Your task to perform on an android device: turn on notifications settings in the gmail app Image 0: 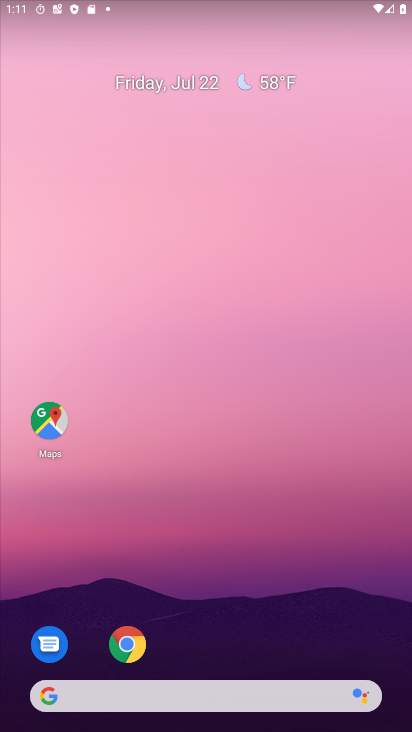
Step 0: drag from (170, 628) to (157, 319)
Your task to perform on an android device: turn on notifications settings in the gmail app Image 1: 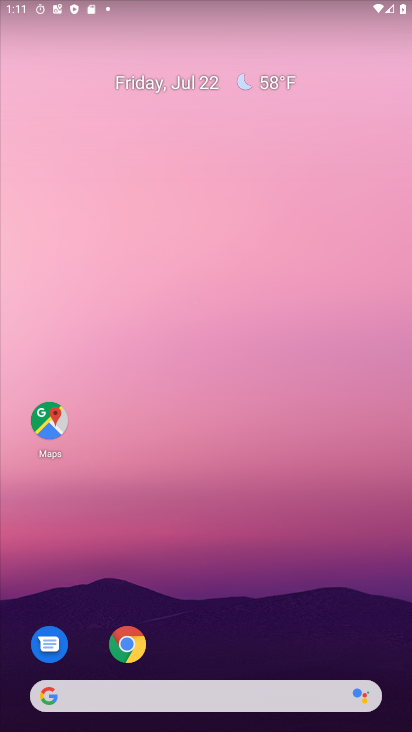
Step 1: drag from (182, 639) to (231, 256)
Your task to perform on an android device: turn on notifications settings in the gmail app Image 2: 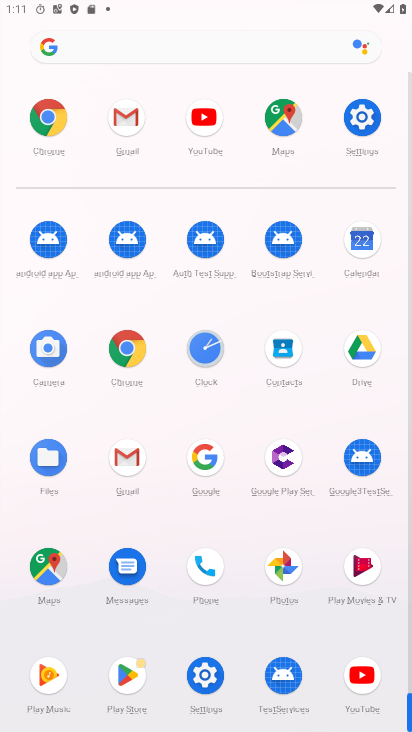
Step 2: click (121, 449)
Your task to perform on an android device: turn on notifications settings in the gmail app Image 3: 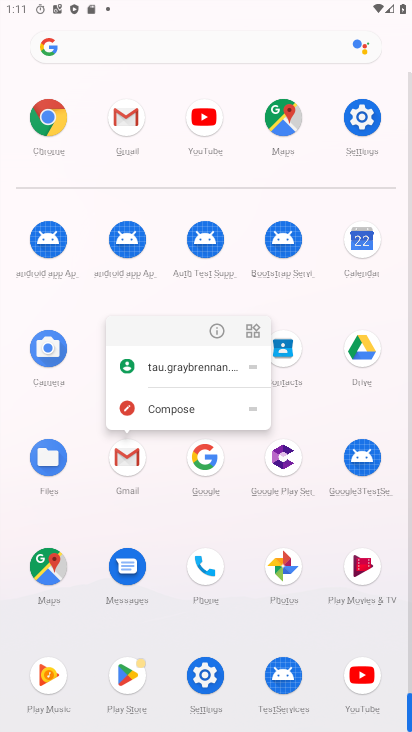
Step 3: click (216, 333)
Your task to perform on an android device: turn on notifications settings in the gmail app Image 4: 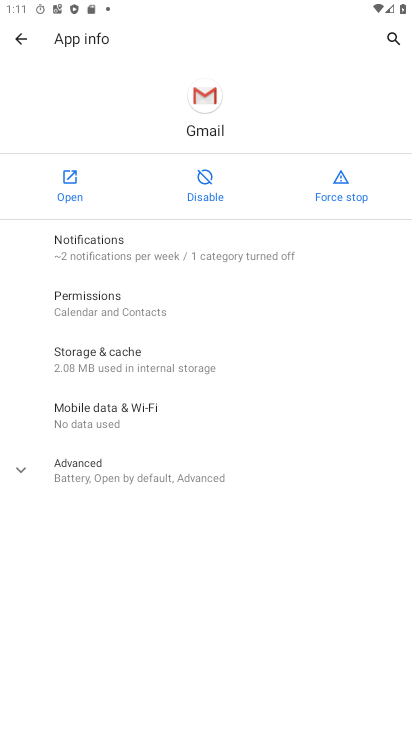
Step 4: click (60, 184)
Your task to perform on an android device: turn on notifications settings in the gmail app Image 5: 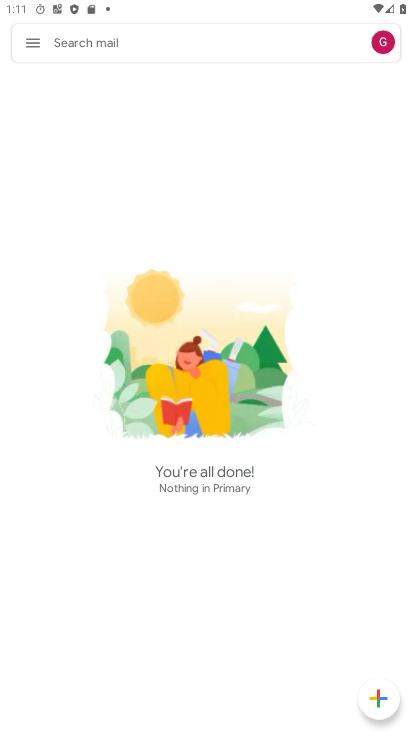
Step 5: drag from (248, 513) to (261, 286)
Your task to perform on an android device: turn on notifications settings in the gmail app Image 6: 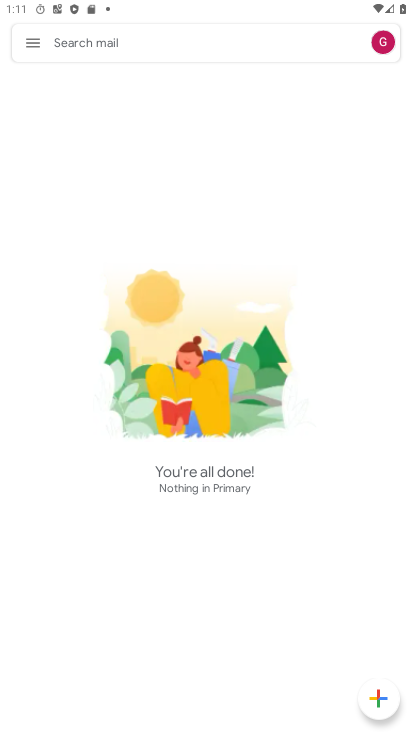
Step 6: drag from (195, 556) to (256, 232)
Your task to perform on an android device: turn on notifications settings in the gmail app Image 7: 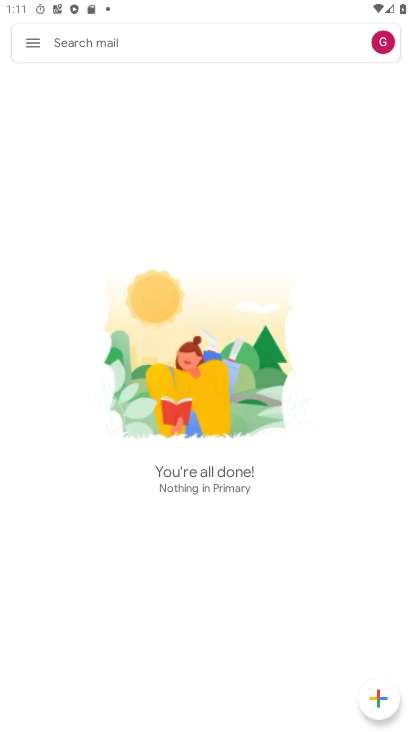
Step 7: click (23, 41)
Your task to perform on an android device: turn on notifications settings in the gmail app Image 8: 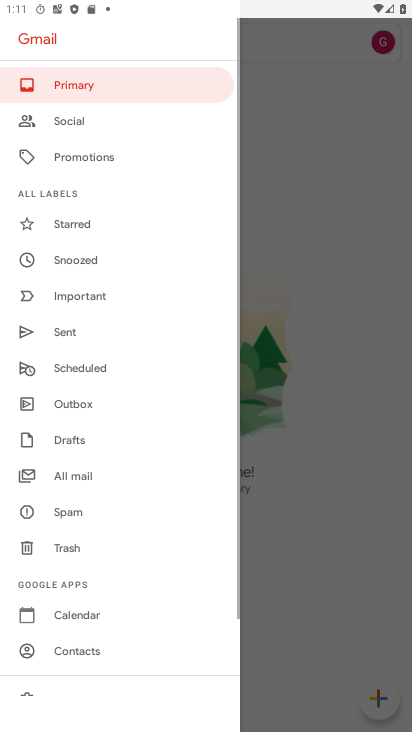
Step 8: drag from (114, 604) to (143, 186)
Your task to perform on an android device: turn on notifications settings in the gmail app Image 9: 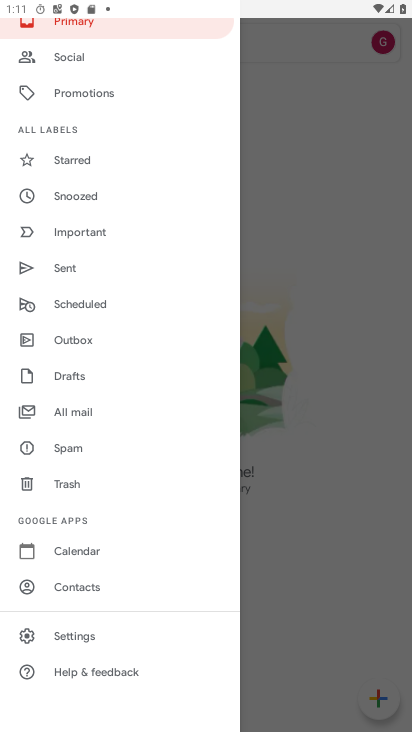
Step 9: click (89, 635)
Your task to perform on an android device: turn on notifications settings in the gmail app Image 10: 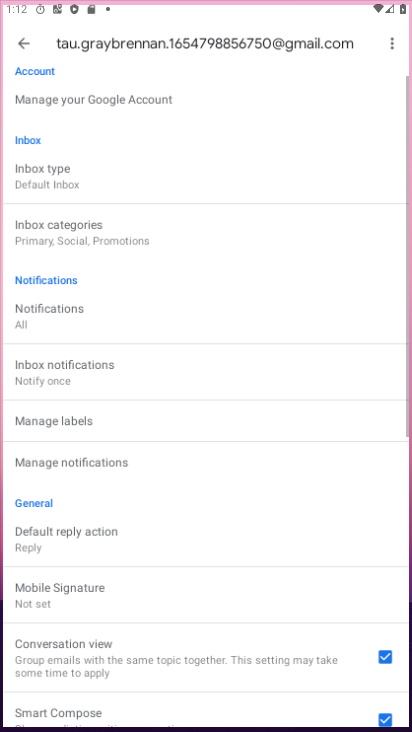
Step 10: drag from (118, 424) to (126, 143)
Your task to perform on an android device: turn on notifications settings in the gmail app Image 11: 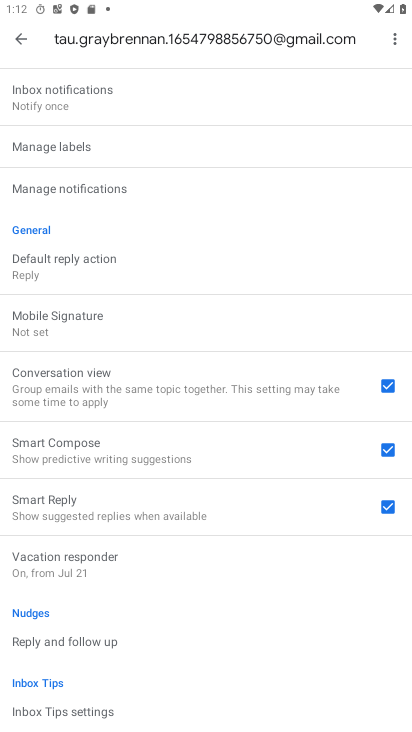
Step 11: drag from (129, 137) to (117, 597)
Your task to perform on an android device: turn on notifications settings in the gmail app Image 12: 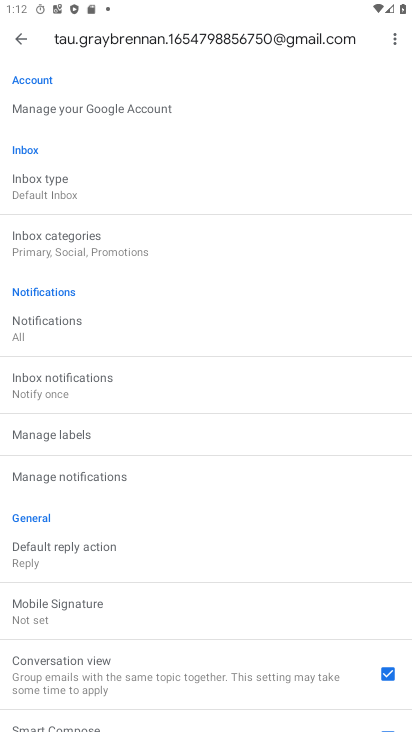
Step 12: click (111, 485)
Your task to perform on an android device: turn on notifications settings in the gmail app Image 13: 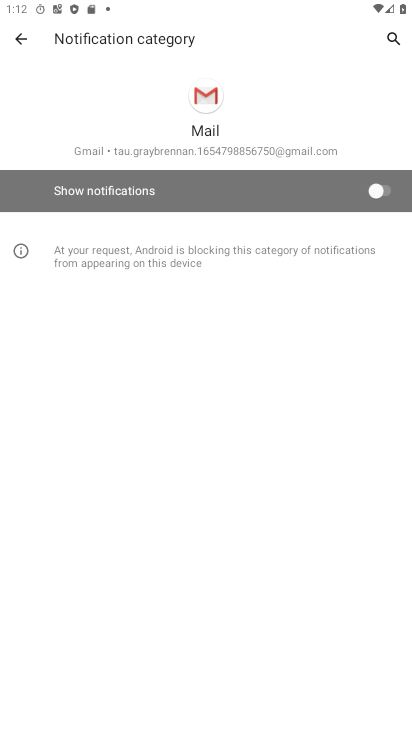
Step 13: click (361, 186)
Your task to perform on an android device: turn on notifications settings in the gmail app Image 14: 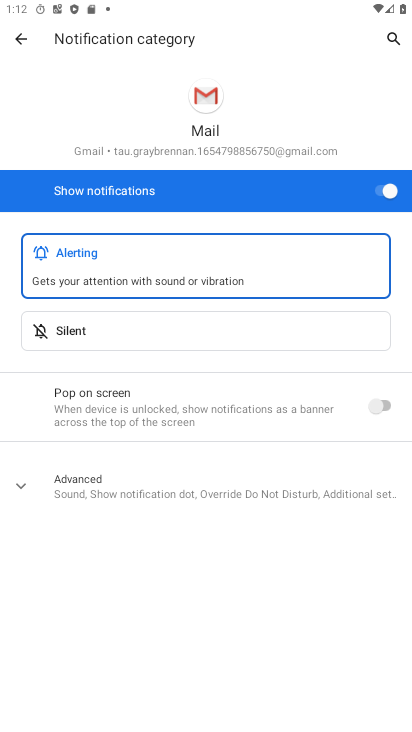
Step 14: task complete